Your task to perform on an android device: clear all cookies in the chrome app Image 0: 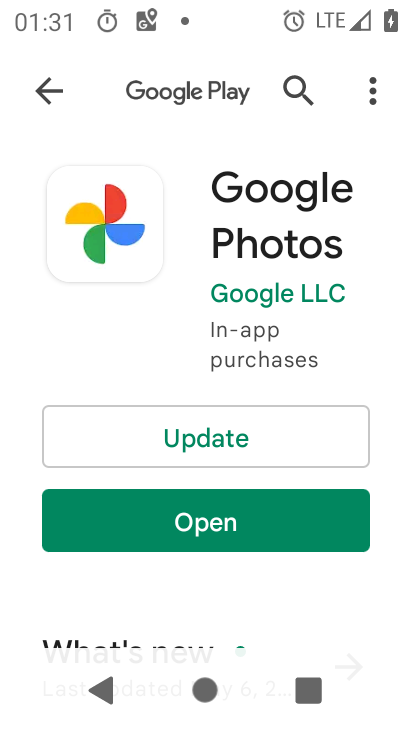
Step 0: press home button
Your task to perform on an android device: clear all cookies in the chrome app Image 1: 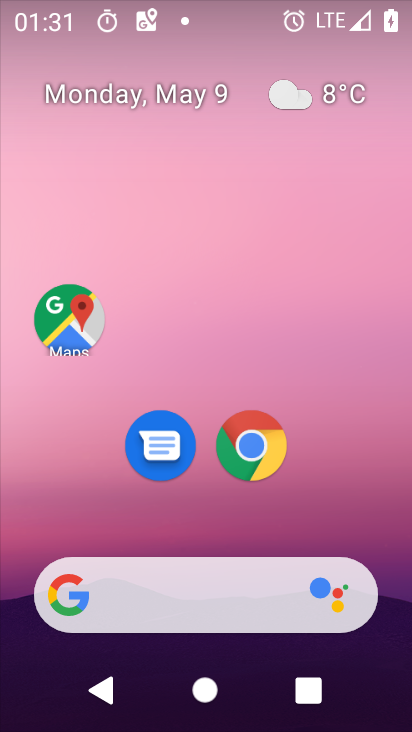
Step 1: click (253, 447)
Your task to perform on an android device: clear all cookies in the chrome app Image 2: 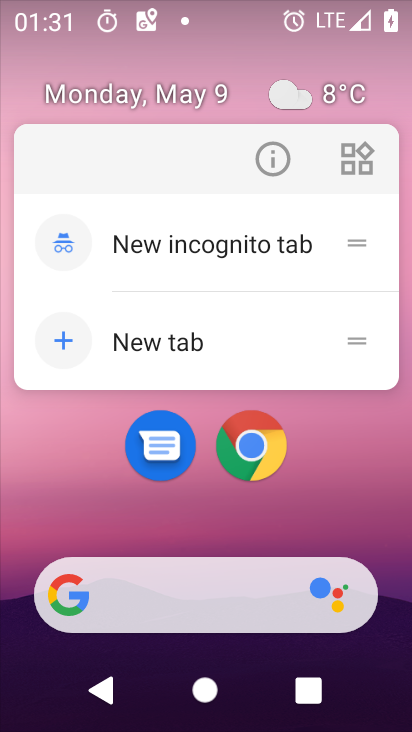
Step 2: click (253, 447)
Your task to perform on an android device: clear all cookies in the chrome app Image 3: 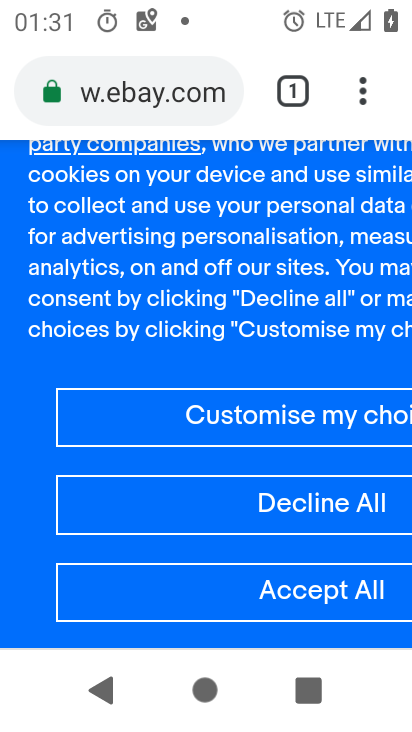
Step 3: drag from (364, 95) to (110, 480)
Your task to perform on an android device: clear all cookies in the chrome app Image 4: 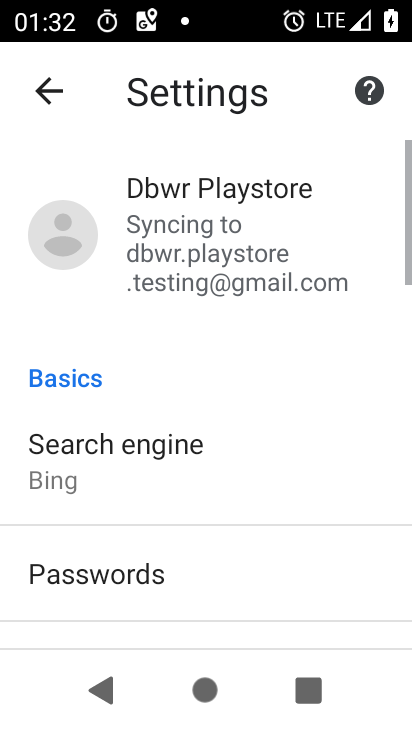
Step 4: drag from (242, 552) to (250, 252)
Your task to perform on an android device: clear all cookies in the chrome app Image 5: 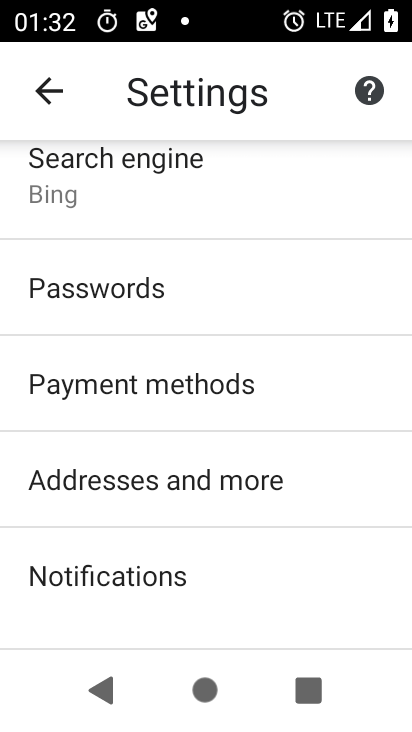
Step 5: drag from (215, 559) to (219, 227)
Your task to perform on an android device: clear all cookies in the chrome app Image 6: 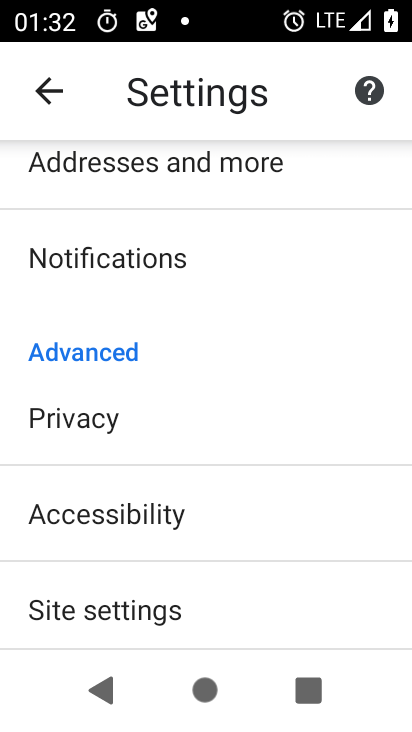
Step 6: click (109, 423)
Your task to perform on an android device: clear all cookies in the chrome app Image 7: 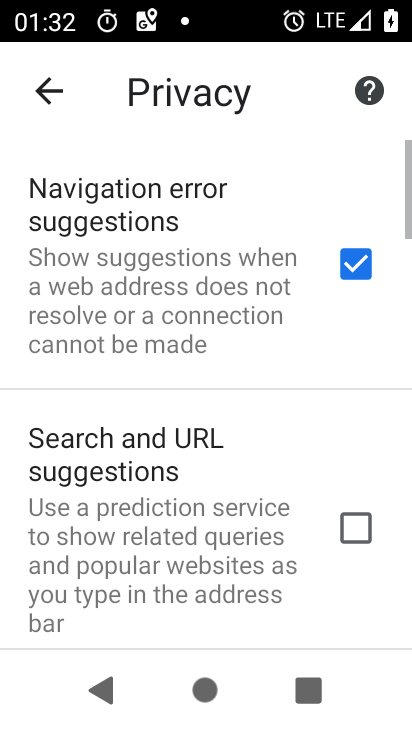
Step 7: drag from (186, 512) to (208, 198)
Your task to perform on an android device: clear all cookies in the chrome app Image 8: 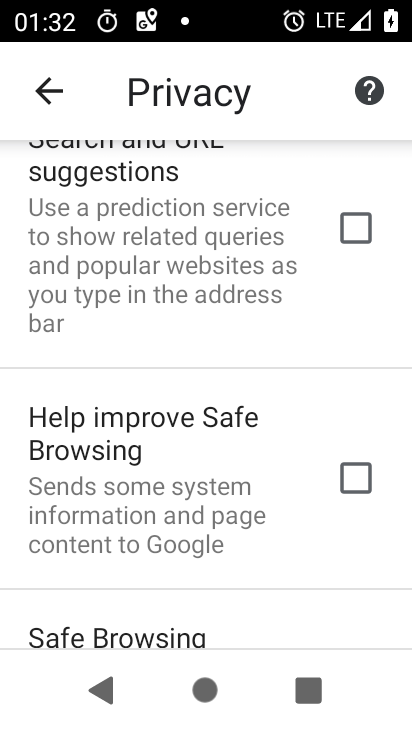
Step 8: drag from (166, 517) to (165, 206)
Your task to perform on an android device: clear all cookies in the chrome app Image 9: 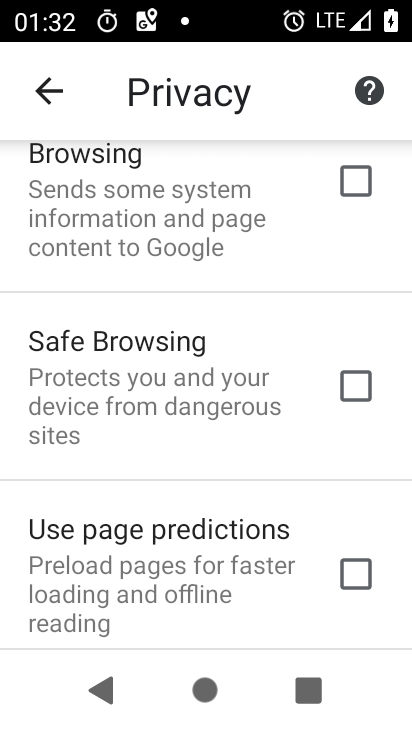
Step 9: drag from (151, 498) to (166, 211)
Your task to perform on an android device: clear all cookies in the chrome app Image 10: 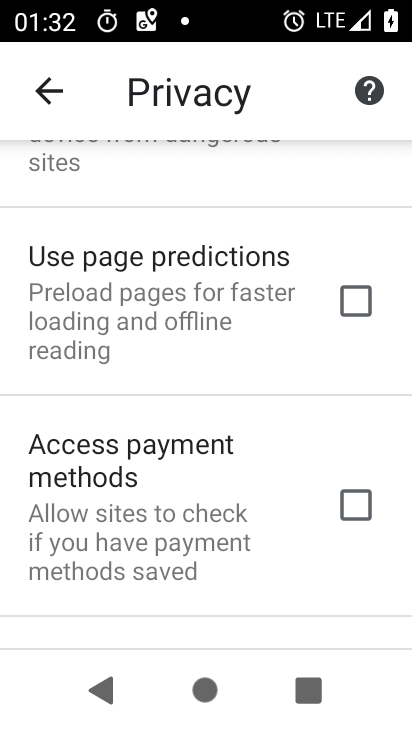
Step 10: drag from (126, 482) to (140, 212)
Your task to perform on an android device: clear all cookies in the chrome app Image 11: 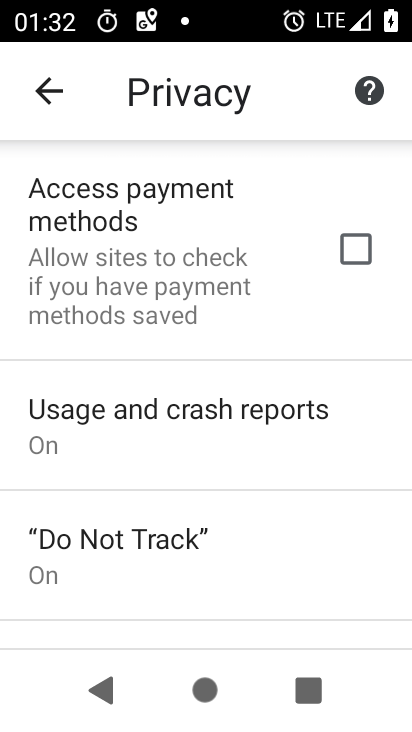
Step 11: drag from (125, 491) to (155, 178)
Your task to perform on an android device: clear all cookies in the chrome app Image 12: 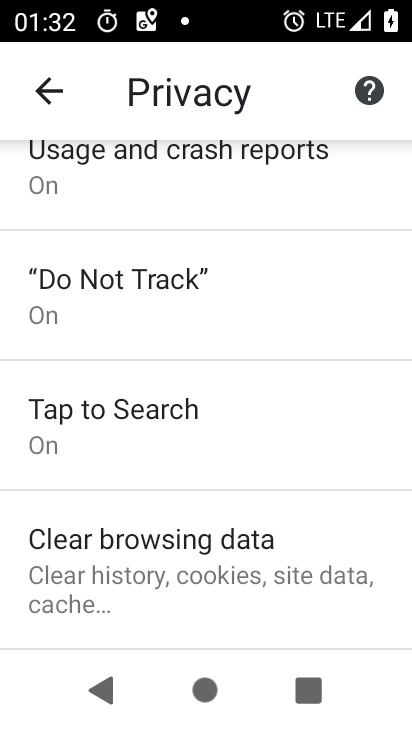
Step 12: click (106, 554)
Your task to perform on an android device: clear all cookies in the chrome app Image 13: 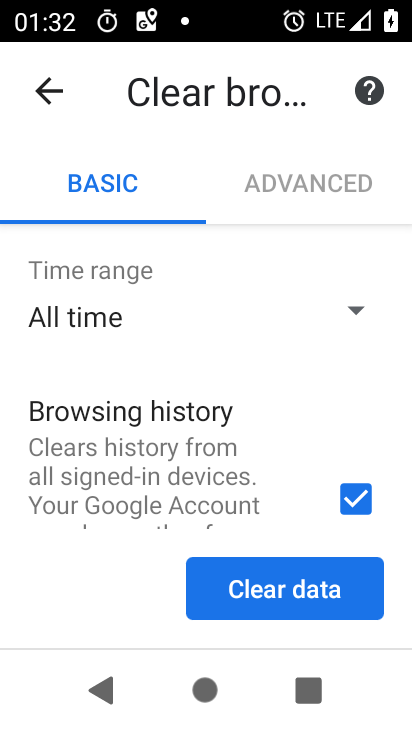
Step 13: click (366, 493)
Your task to perform on an android device: clear all cookies in the chrome app Image 14: 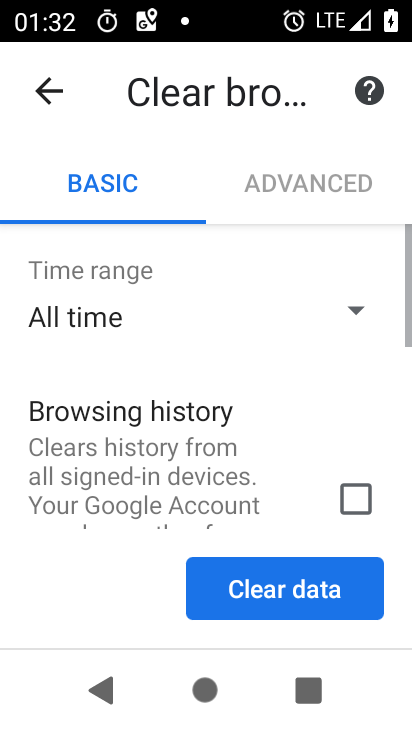
Step 14: drag from (121, 485) to (153, 184)
Your task to perform on an android device: clear all cookies in the chrome app Image 15: 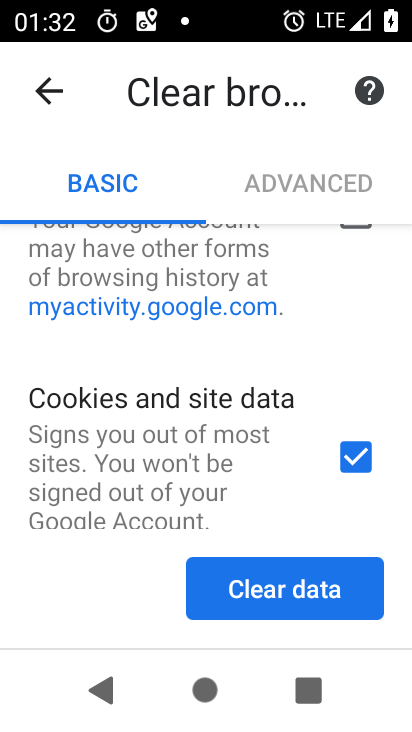
Step 15: drag from (118, 448) to (166, 215)
Your task to perform on an android device: clear all cookies in the chrome app Image 16: 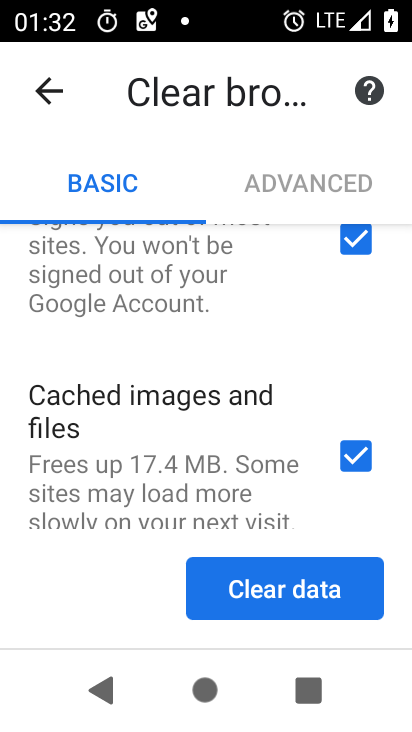
Step 16: click (365, 460)
Your task to perform on an android device: clear all cookies in the chrome app Image 17: 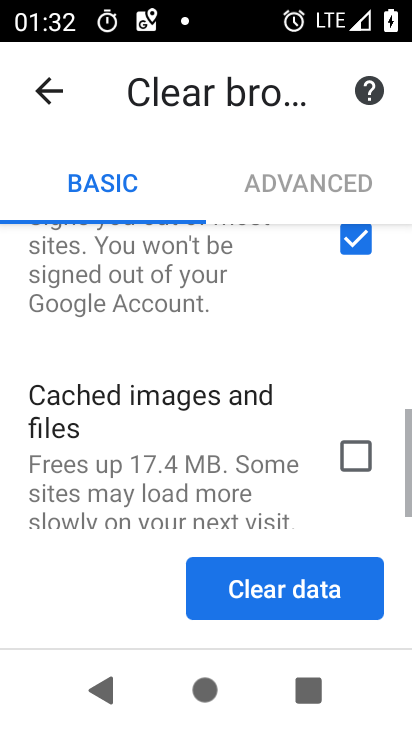
Step 17: click (276, 591)
Your task to perform on an android device: clear all cookies in the chrome app Image 18: 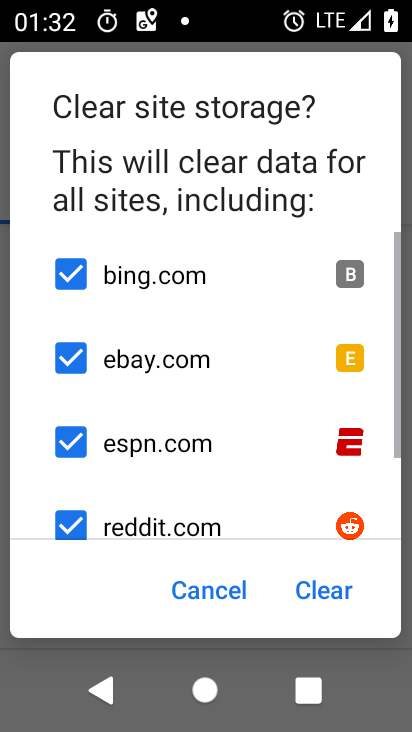
Step 18: click (322, 590)
Your task to perform on an android device: clear all cookies in the chrome app Image 19: 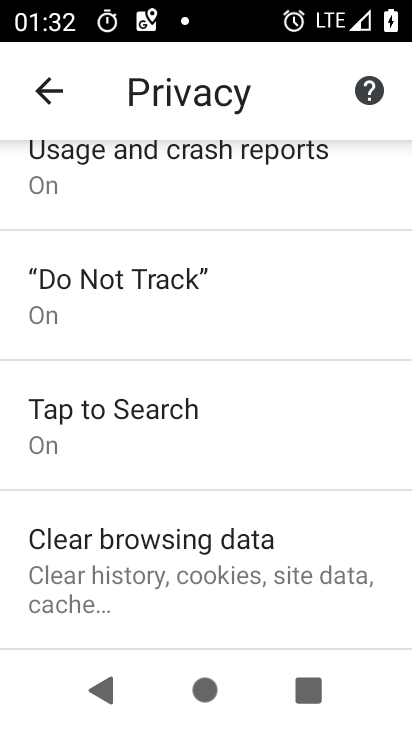
Step 19: task complete